Your task to perform on an android device: install app "Facebook Lite" Image 0: 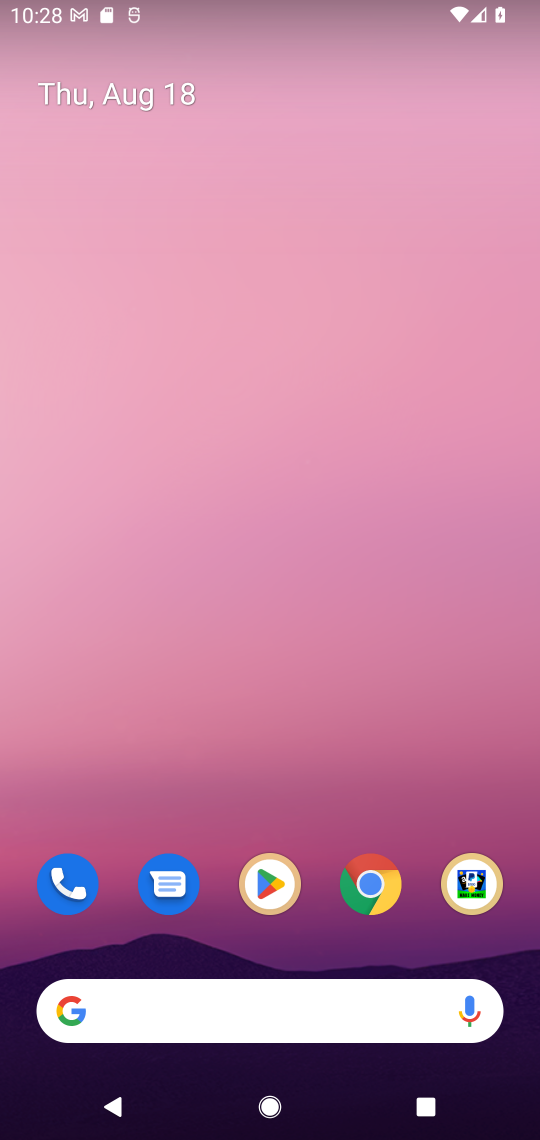
Step 0: drag from (228, 1014) to (243, 121)
Your task to perform on an android device: install app "Facebook Lite" Image 1: 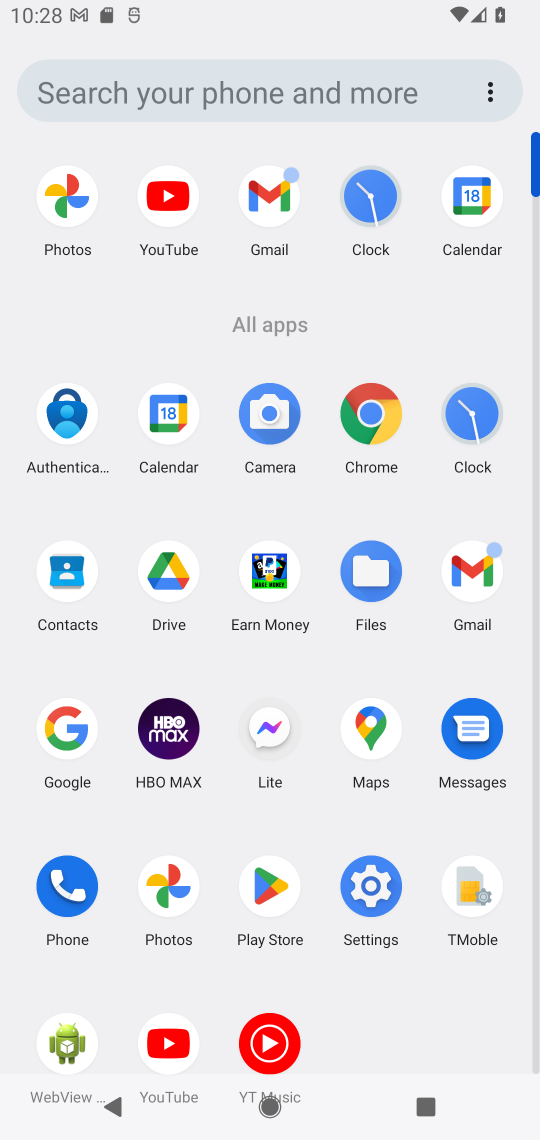
Step 1: click (274, 887)
Your task to perform on an android device: install app "Facebook Lite" Image 2: 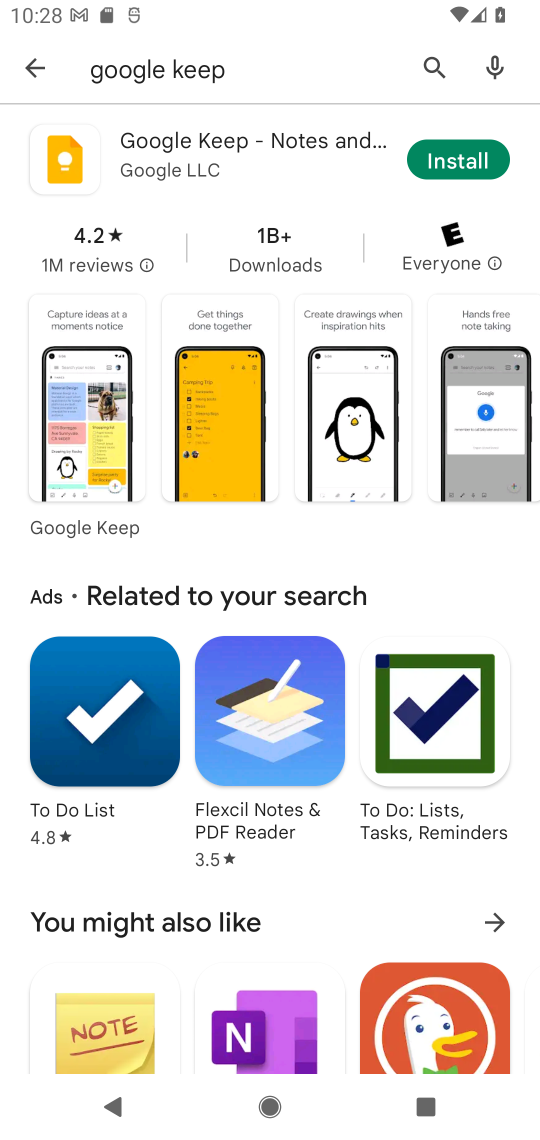
Step 2: press back button
Your task to perform on an android device: install app "Facebook Lite" Image 3: 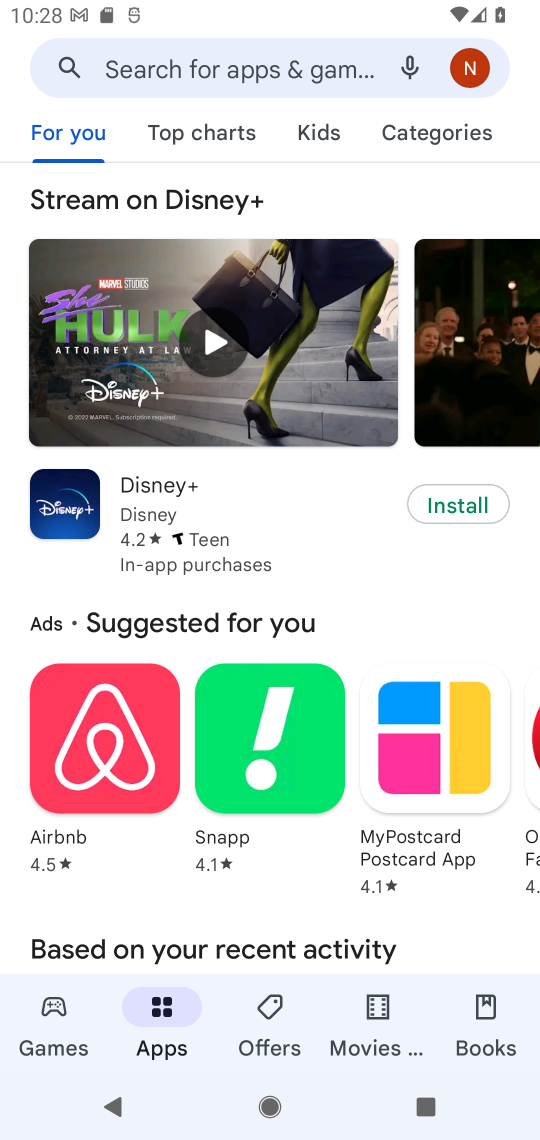
Step 3: click (267, 64)
Your task to perform on an android device: install app "Facebook Lite" Image 4: 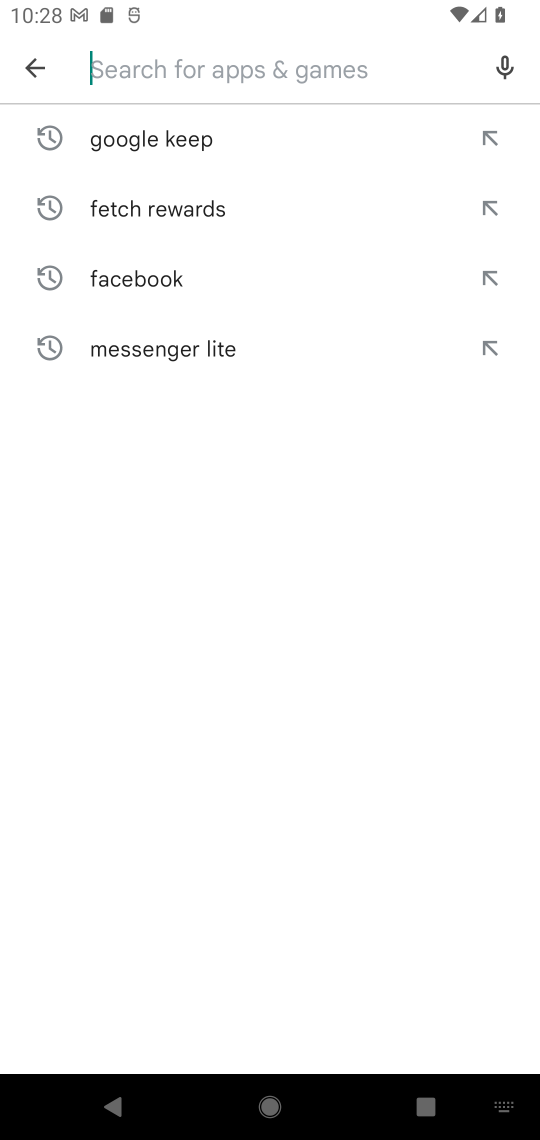
Step 4: type "Facebook Lite"
Your task to perform on an android device: install app "Facebook Lite" Image 5: 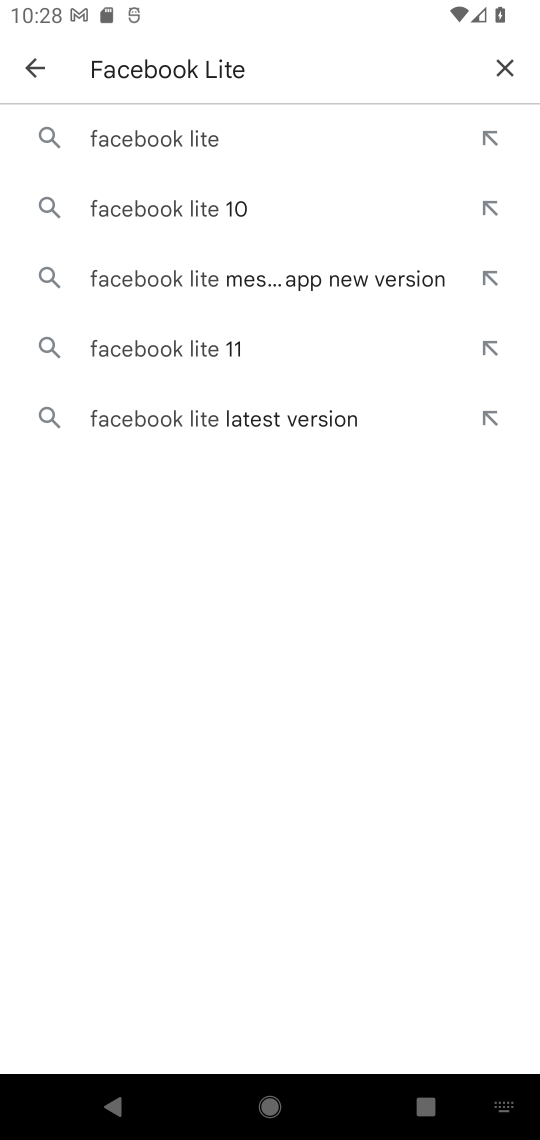
Step 5: click (207, 137)
Your task to perform on an android device: install app "Facebook Lite" Image 6: 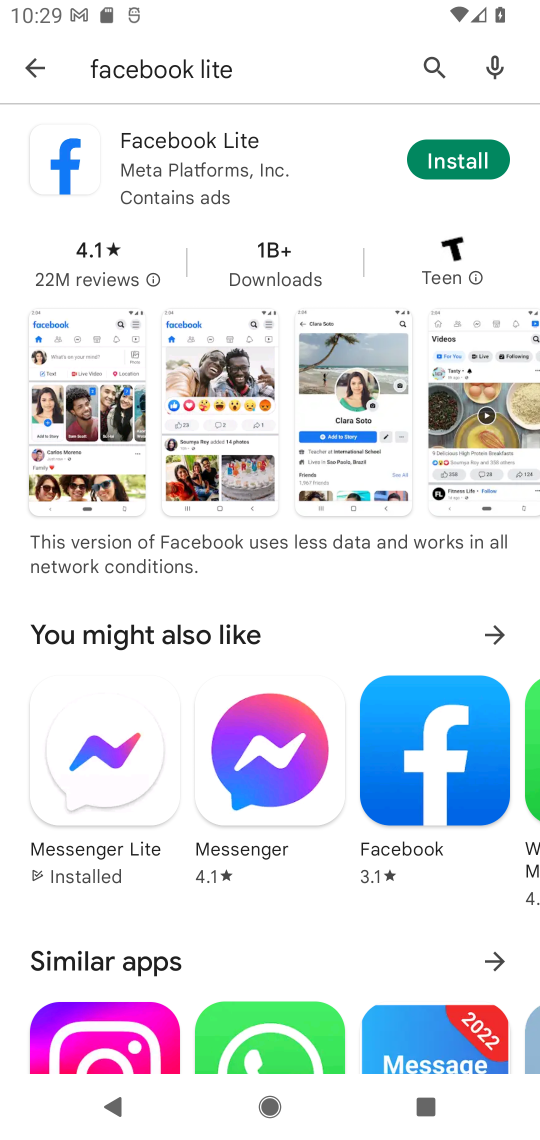
Step 6: click (465, 158)
Your task to perform on an android device: install app "Facebook Lite" Image 7: 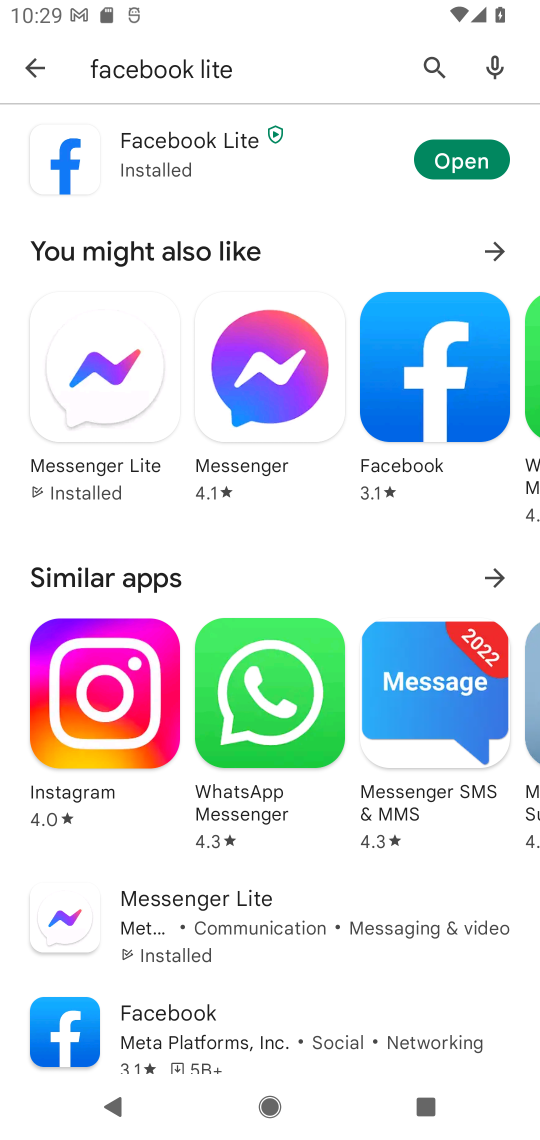
Step 7: task complete